Your task to perform on an android device: Go to settings Image 0: 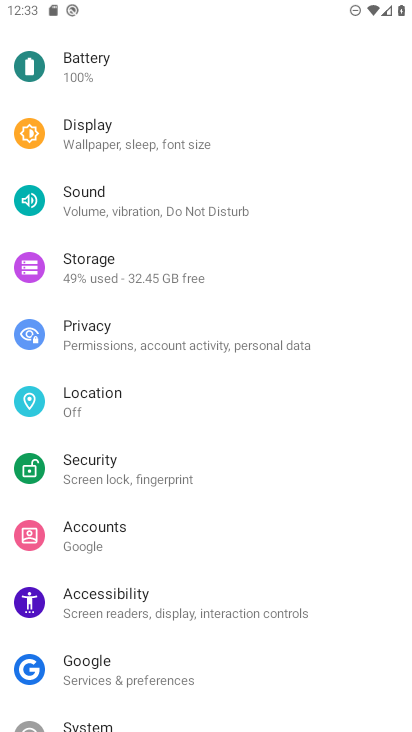
Step 0: task complete